Your task to perform on an android device: Go to settings Image 0: 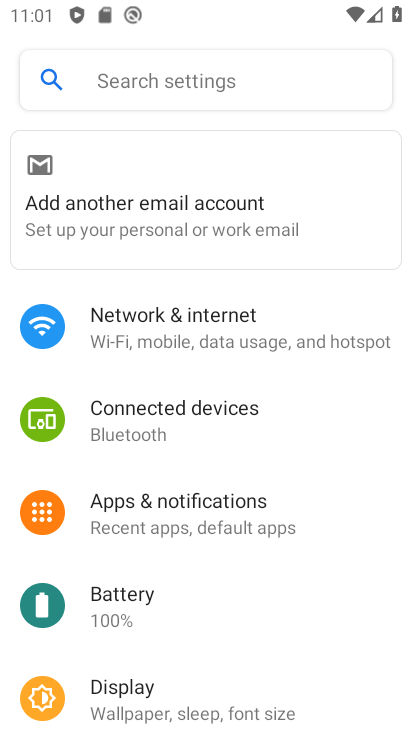
Step 0: drag from (380, 613) to (393, 223)
Your task to perform on an android device: Go to settings Image 1: 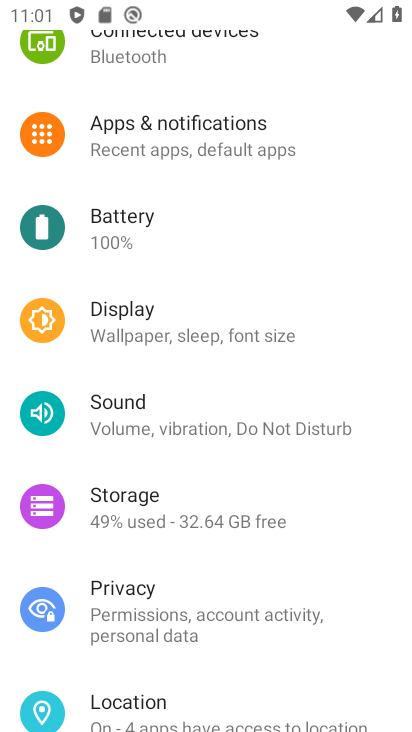
Step 1: task complete